Your task to perform on an android device: Do I have any events tomorrow? Image 0: 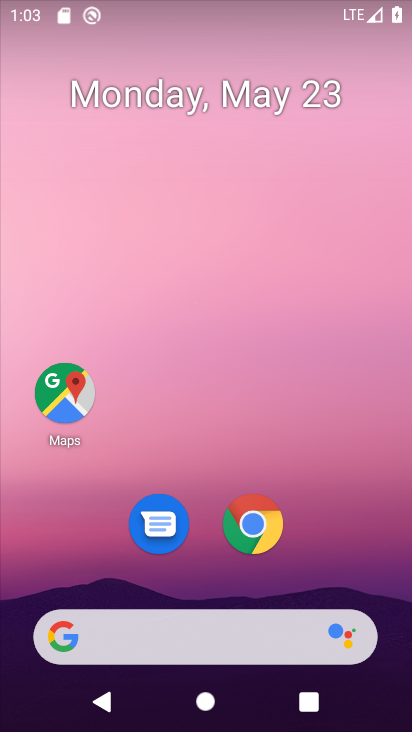
Step 0: drag from (258, 448) to (251, 1)
Your task to perform on an android device: Do I have any events tomorrow? Image 1: 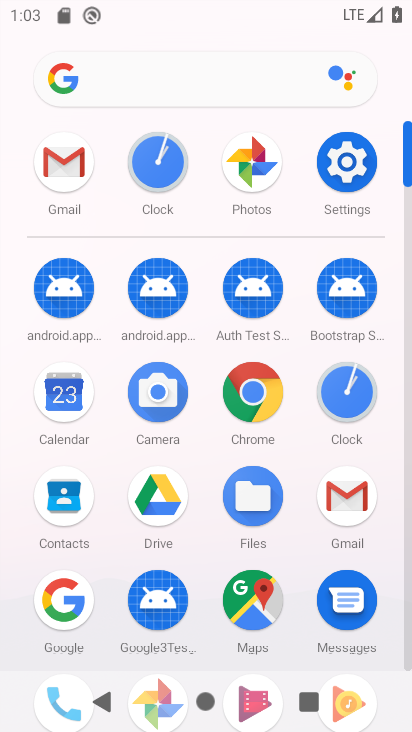
Step 1: click (69, 379)
Your task to perform on an android device: Do I have any events tomorrow? Image 2: 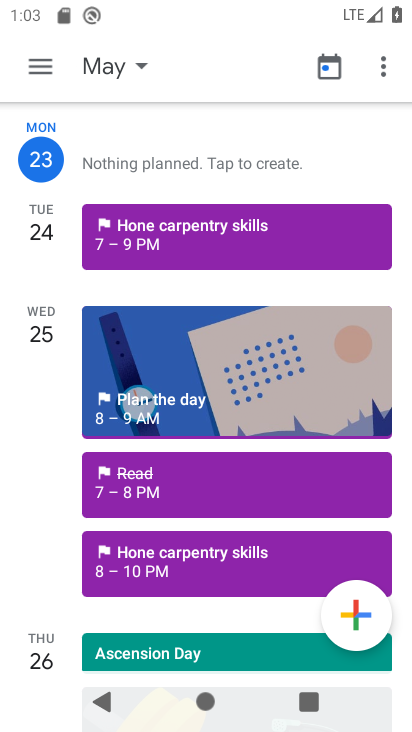
Step 2: task complete